Your task to perform on an android device: open app "NewsBreak: Local News & Alerts" (install if not already installed) and go to login screen Image 0: 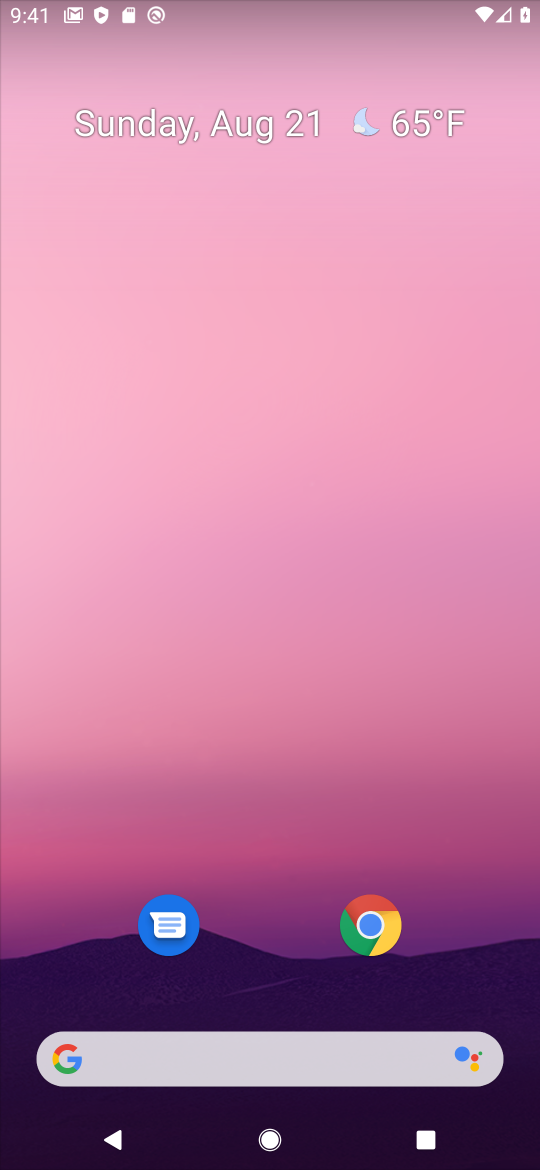
Step 0: drag from (222, 1011) to (399, 248)
Your task to perform on an android device: open app "NewsBreak: Local News & Alerts" (install if not already installed) and go to login screen Image 1: 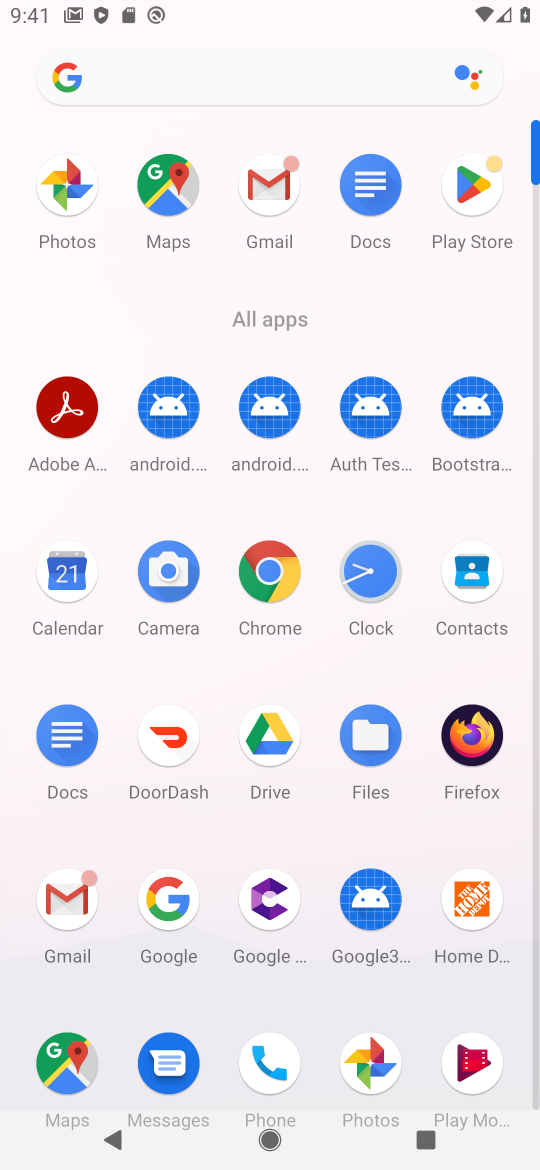
Step 1: click (486, 208)
Your task to perform on an android device: open app "NewsBreak: Local News & Alerts" (install if not already installed) and go to login screen Image 2: 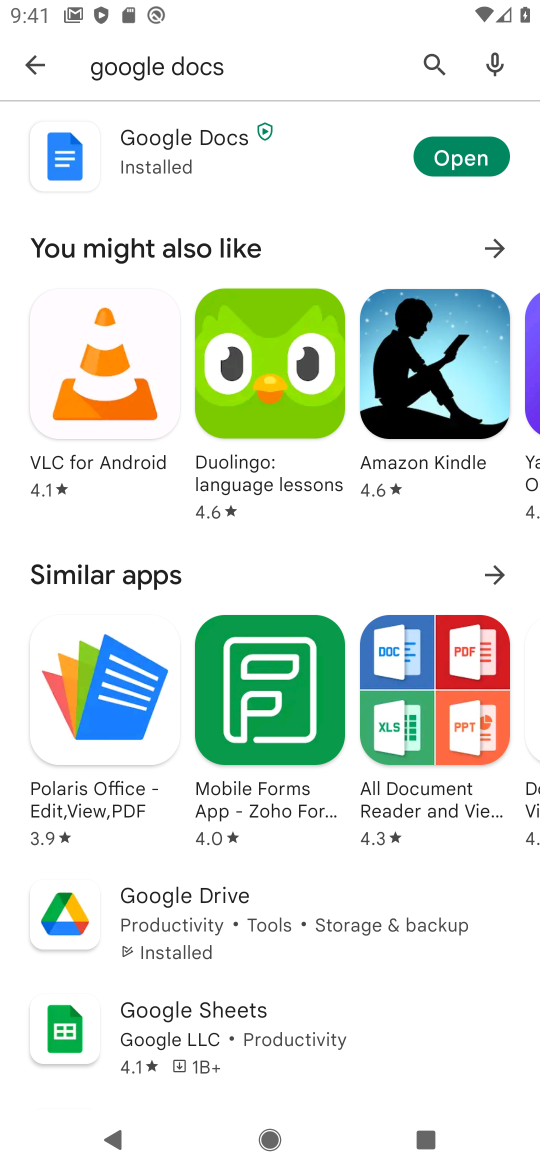
Step 2: click (415, 39)
Your task to perform on an android device: open app "NewsBreak: Local News & Alerts" (install if not already installed) and go to login screen Image 3: 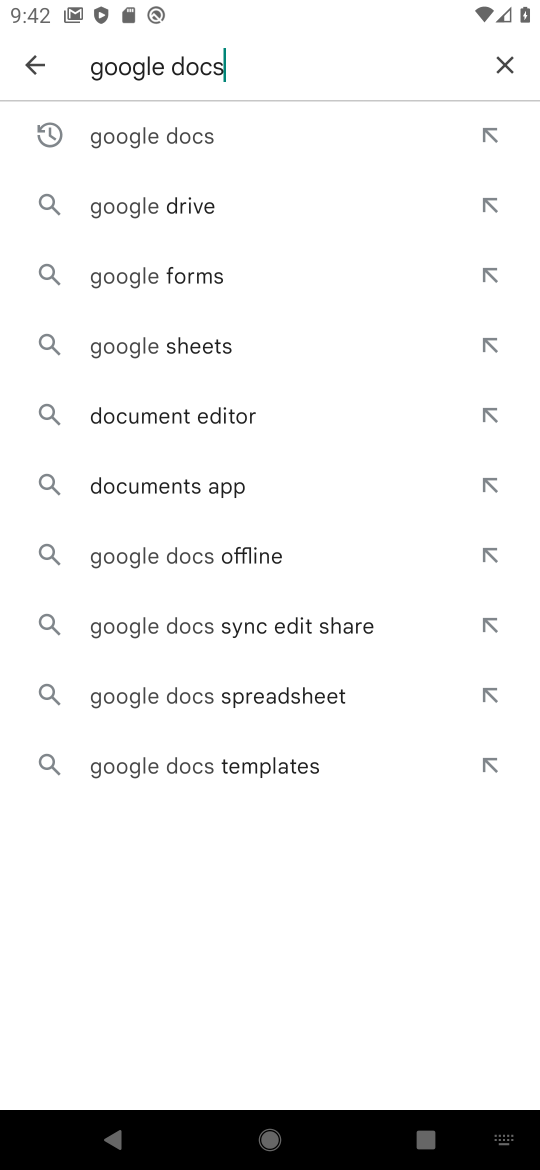
Step 3: click (527, 69)
Your task to perform on an android device: open app "NewsBreak: Local News & Alerts" (install if not already installed) and go to login screen Image 4: 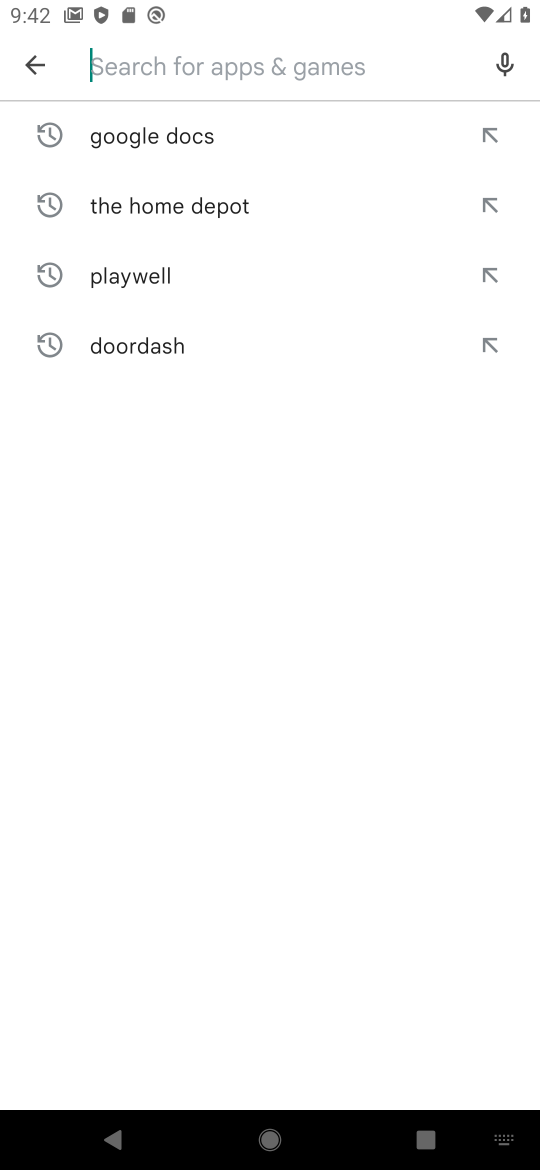
Step 4: click (128, 65)
Your task to perform on an android device: open app "NewsBreak: Local News & Alerts" (install if not already installed) and go to login screen Image 5: 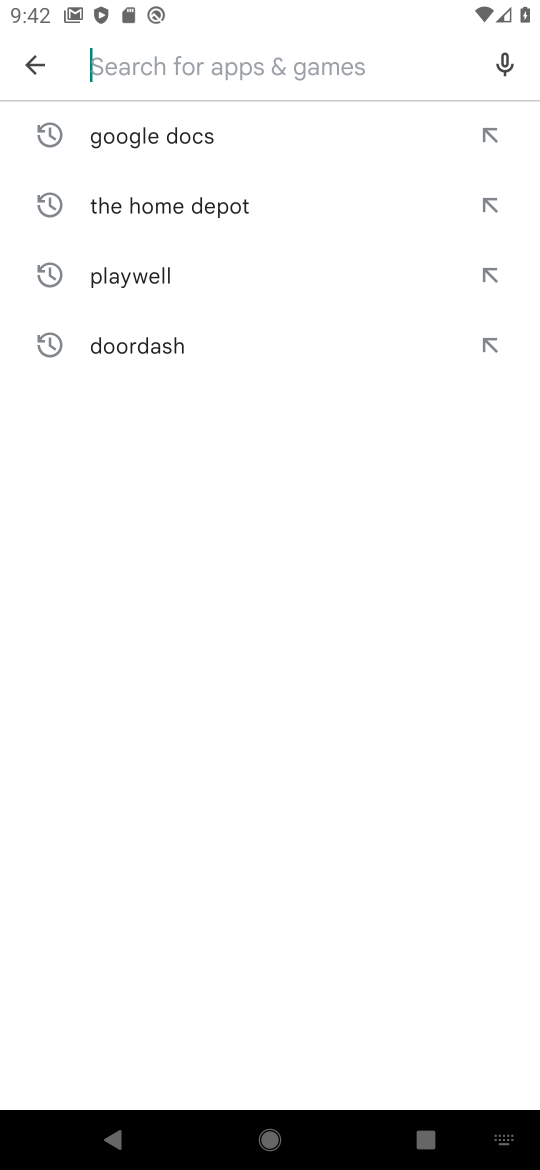
Step 5: type "NewsBreak"
Your task to perform on an android device: open app "NewsBreak: Local News & Alerts" (install if not already installed) and go to login screen Image 6: 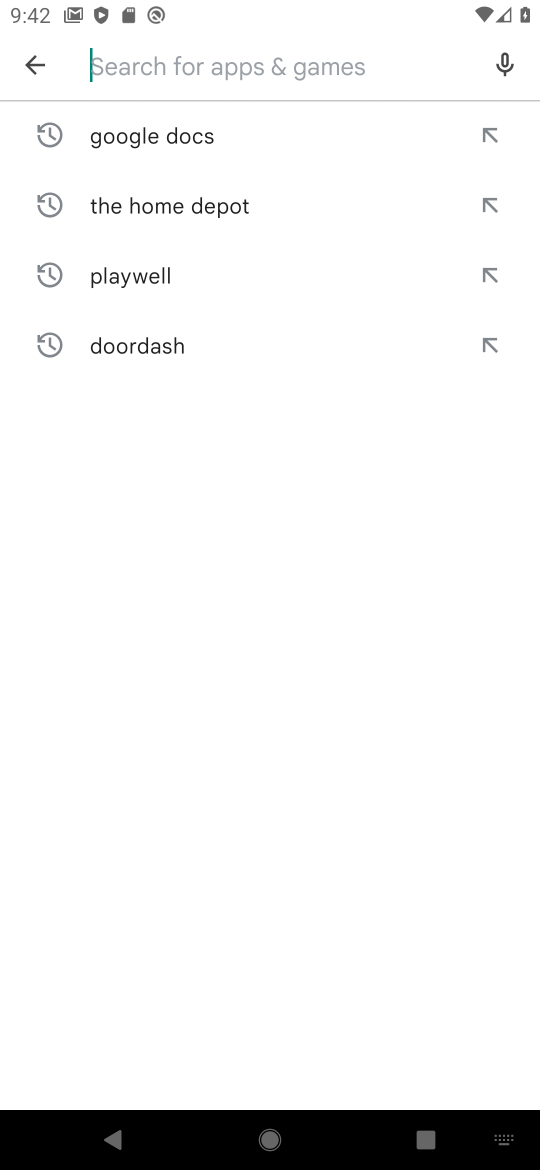
Step 6: click (92, 475)
Your task to perform on an android device: open app "NewsBreak: Local News & Alerts" (install if not already installed) and go to login screen Image 7: 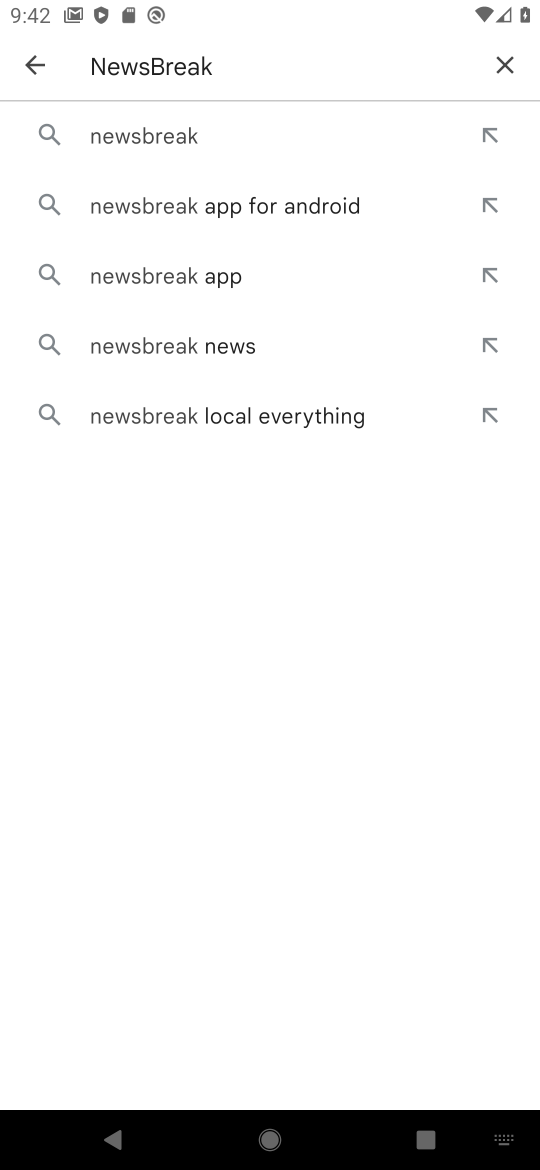
Step 7: click (137, 110)
Your task to perform on an android device: open app "NewsBreak: Local News & Alerts" (install if not already installed) and go to login screen Image 8: 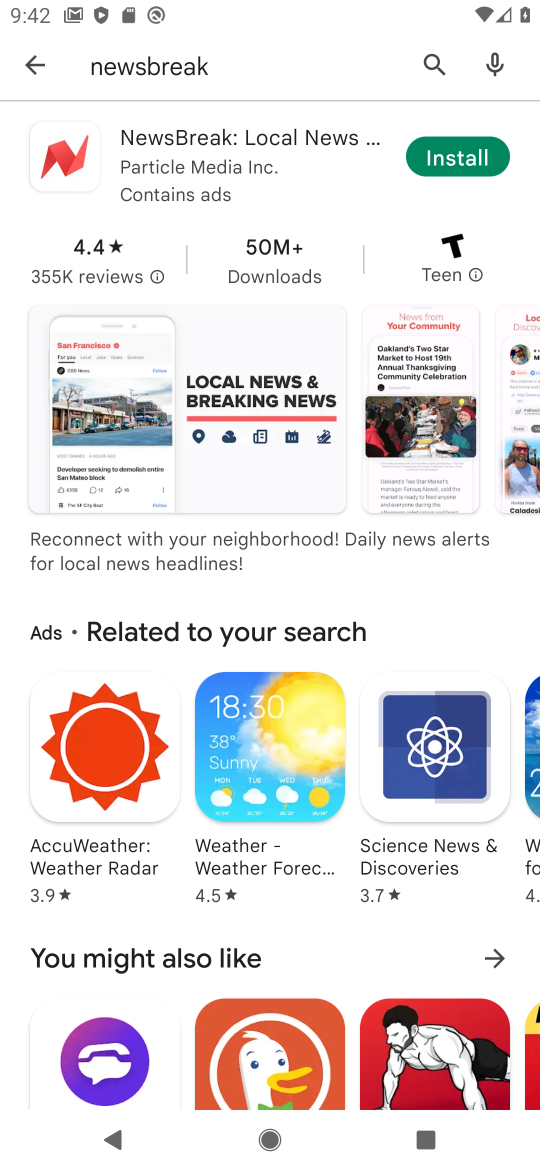
Step 8: click (453, 159)
Your task to perform on an android device: open app "NewsBreak: Local News & Alerts" (install if not already installed) and go to login screen Image 9: 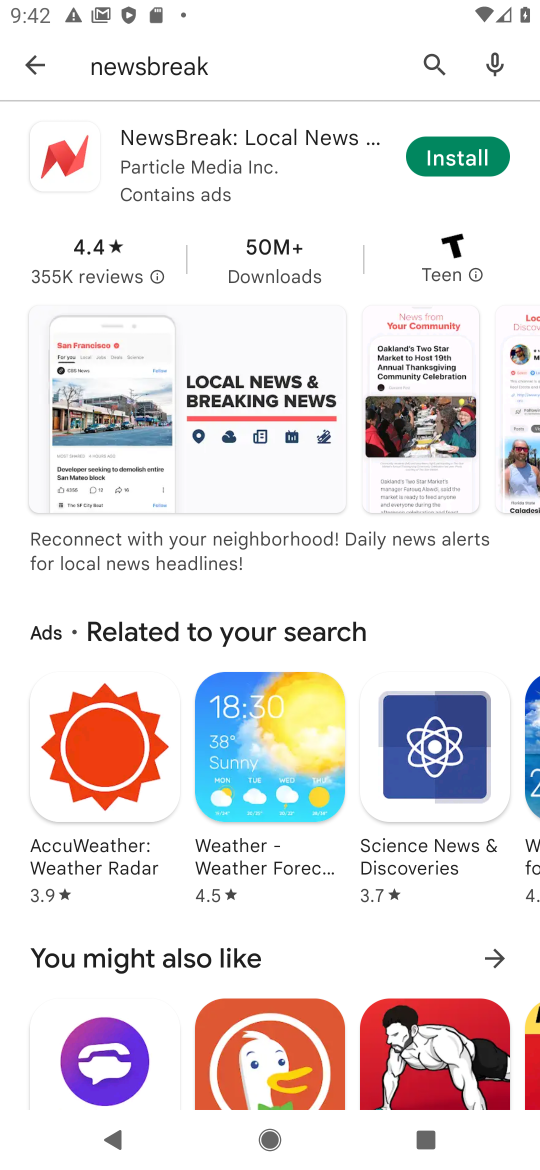
Step 9: click (483, 150)
Your task to perform on an android device: open app "NewsBreak: Local News & Alerts" (install if not already installed) and go to login screen Image 10: 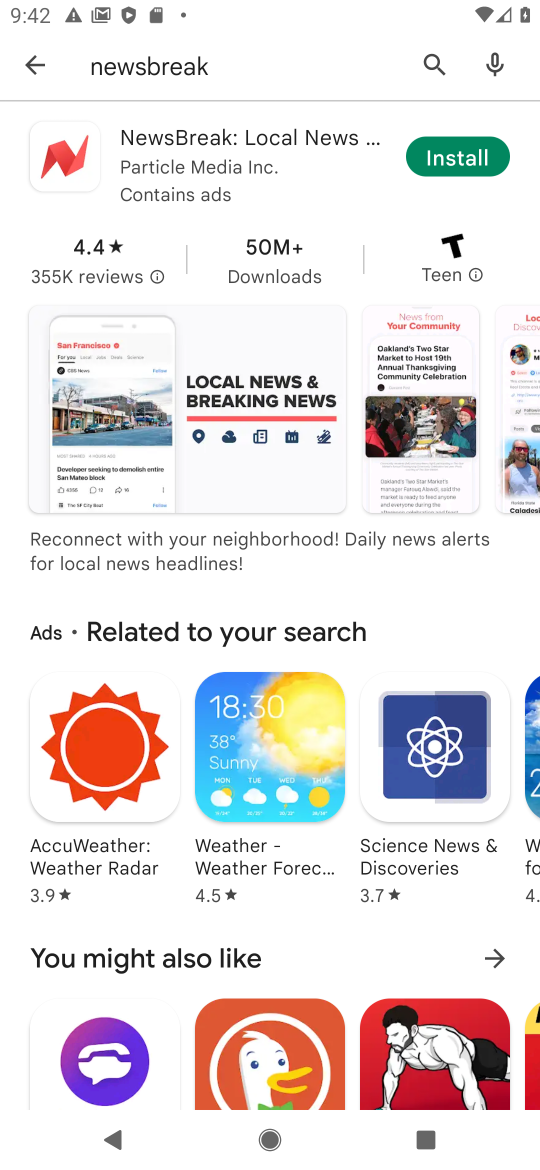
Step 10: click (416, 139)
Your task to perform on an android device: open app "NewsBreak: Local News & Alerts" (install if not already installed) and go to login screen Image 11: 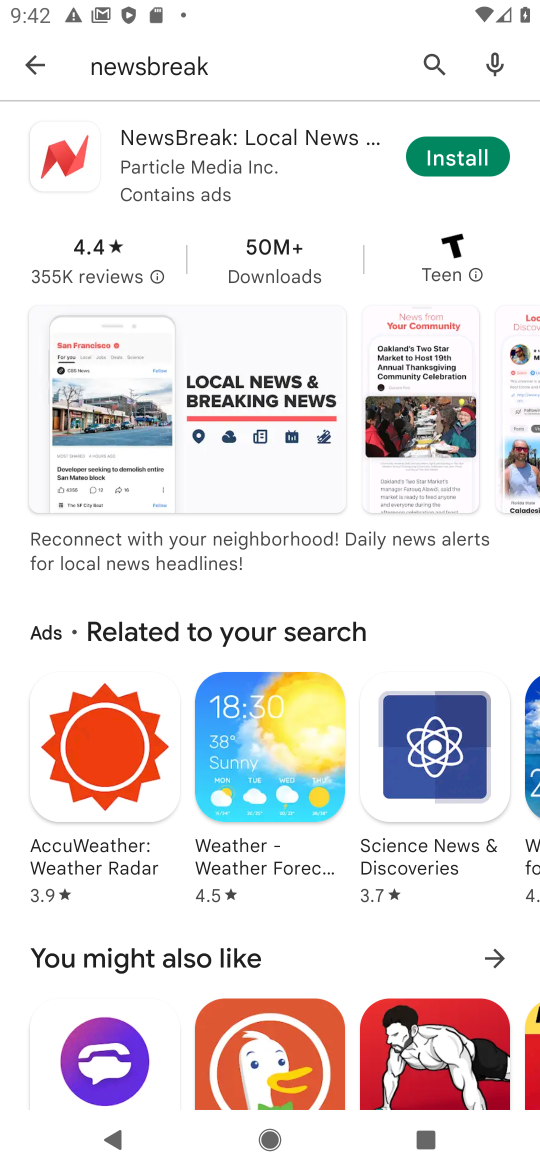
Step 11: task complete